Your task to perform on an android device: Open display settings Image 0: 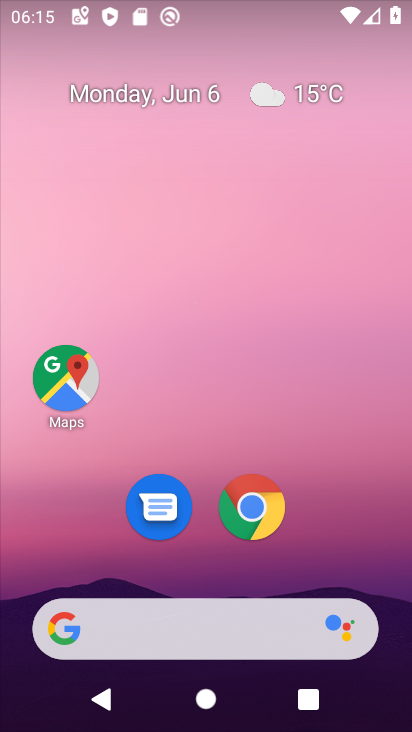
Step 0: drag from (214, 567) to (218, 5)
Your task to perform on an android device: Open display settings Image 1: 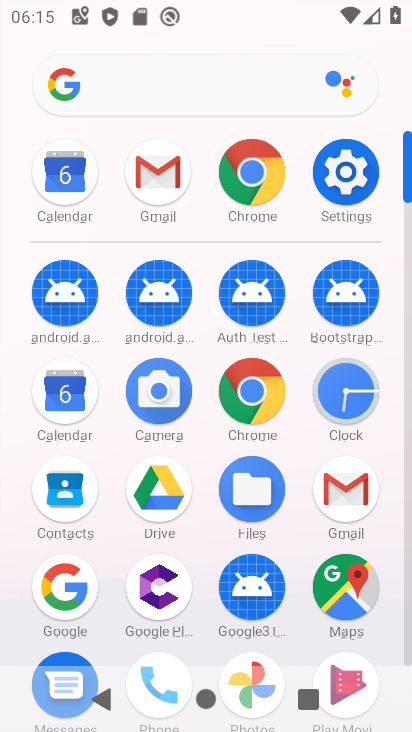
Step 1: click (344, 170)
Your task to perform on an android device: Open display settings Image 2: 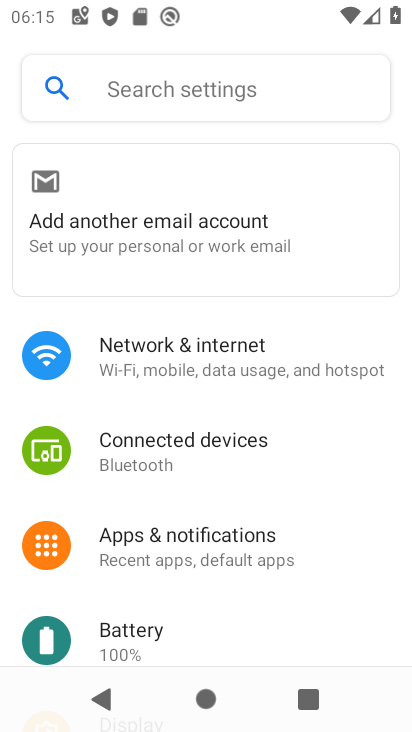
Step 2: drag from (164, 509) to (159, 67)
Your task to perform on an android device: Open display settings Image 3: 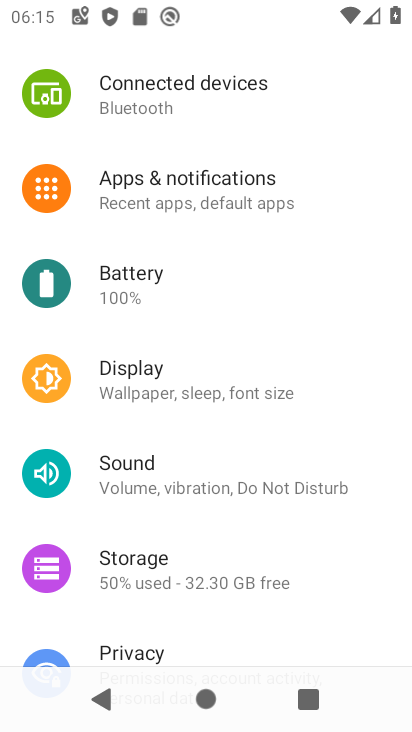
Step 3: click (120, 407)
Your task to perform on an android device: Open display settings Image 4: 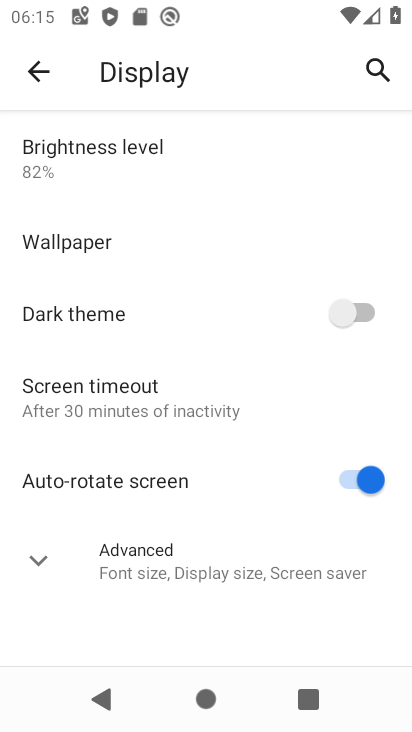
Step 4: task complete